Your task to perform on an android device: turn off smart reply in the gmail app Image 0: 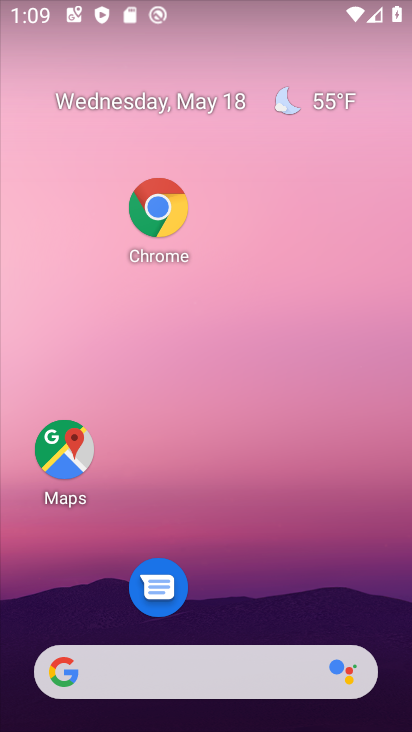
Step 0: drag from (235, 591) to (262, 111)
Your task to perform on an android device: turn off smart reply in the gmail app Image 1: 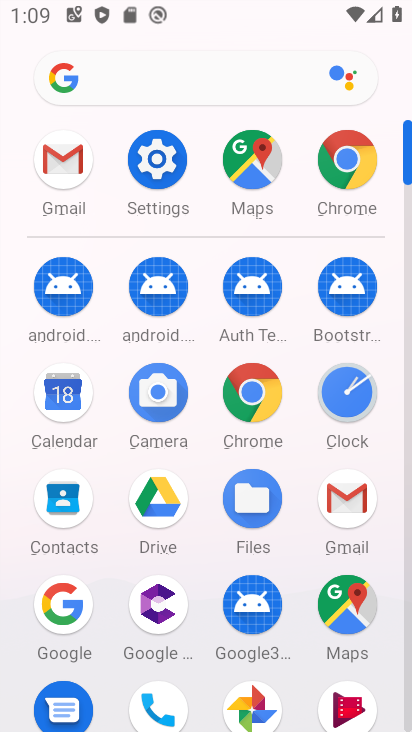
Step 1: click (73, 163)
Your task to perform on an android device: turn off smart reply in the gmail app Image 2: 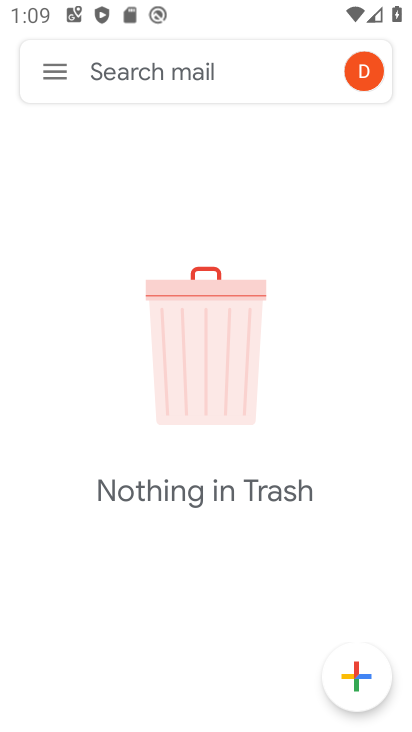
Step 2: click (57, 69)
Your task to perform on an android device: turn off smart reply in the gmail app Image 3: 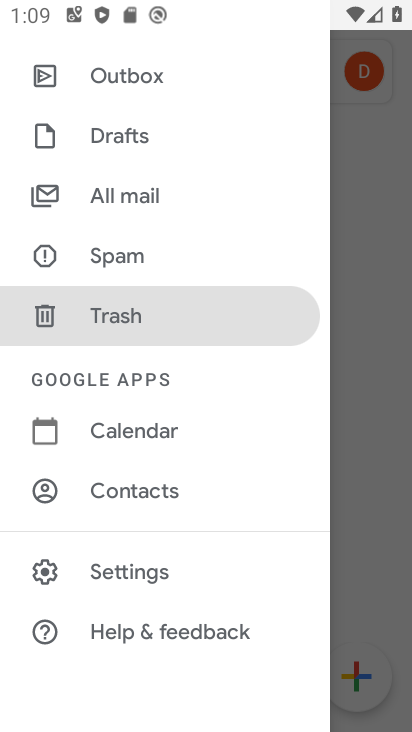
Step 3: click (160, 572)
Your task to perform on an android device: turn off smart reply in the gmail app Image 4: 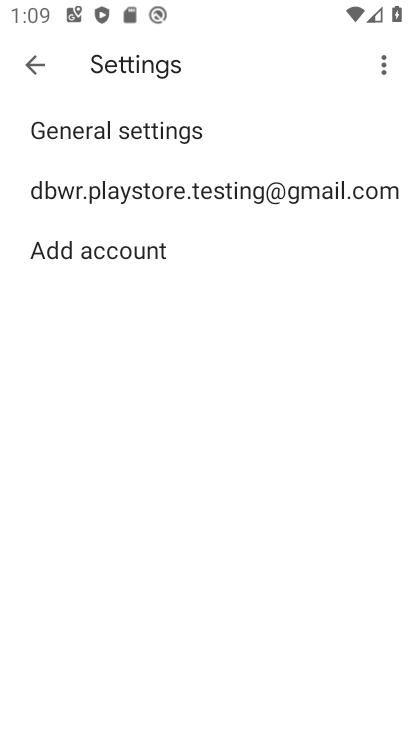
Step 4: click (193, 206)
Your task to perform on an android device: turn off smart reply in the gmail app Image 5: 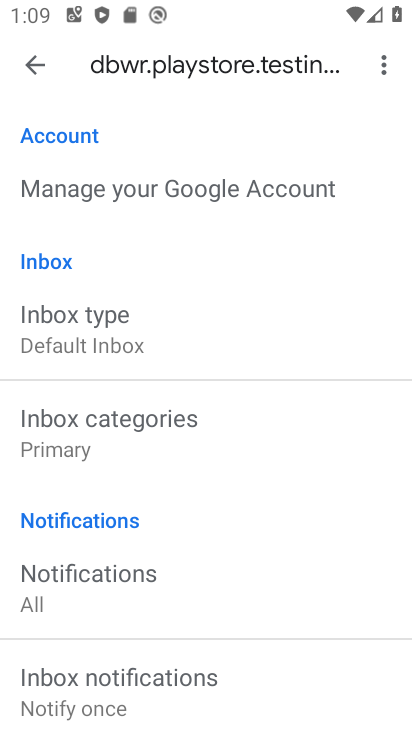
Step 5: task complete